Your task to perform on an android device: Open wifi settings Image 0: 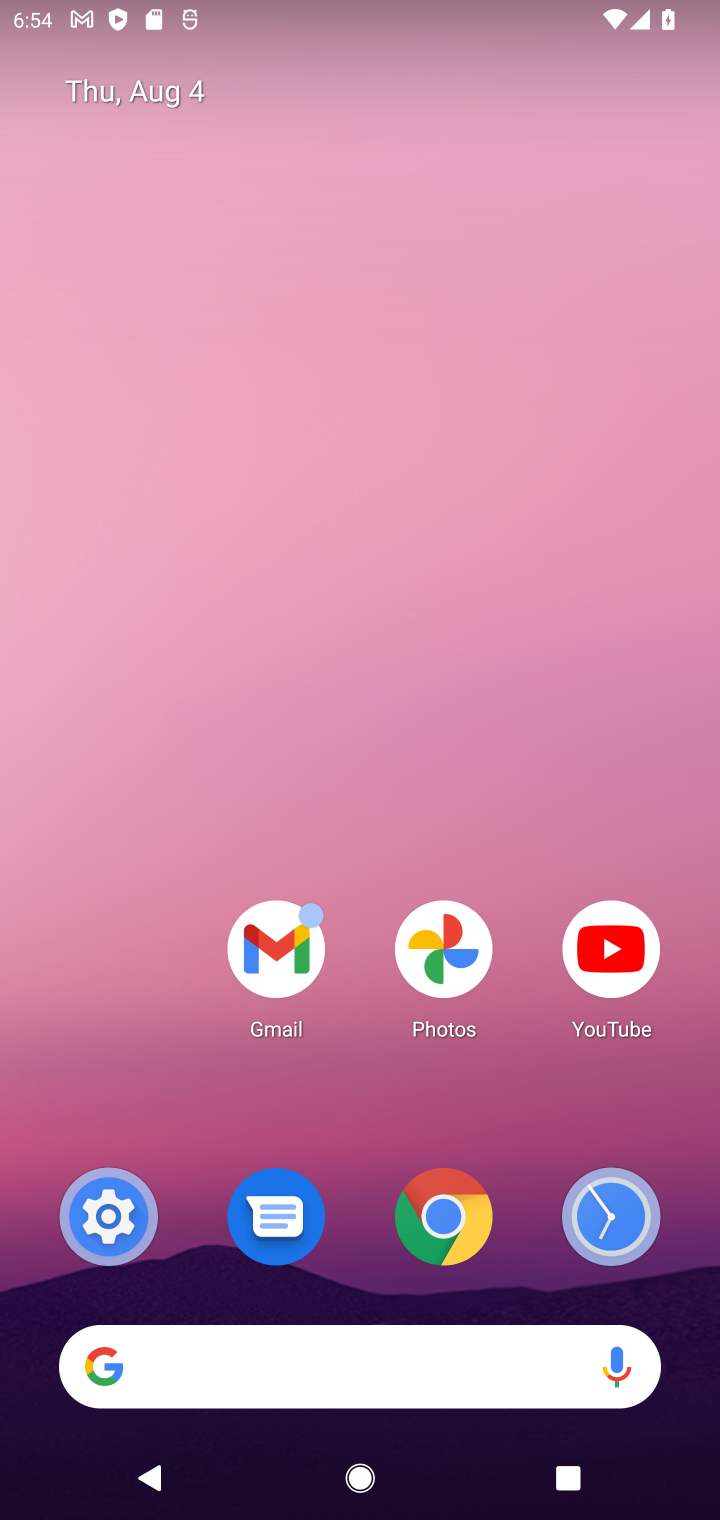
Step 0: drag from (320, 1120) to (310, 103)
Your task to perform on an android device: Open wifi settings Image 1: 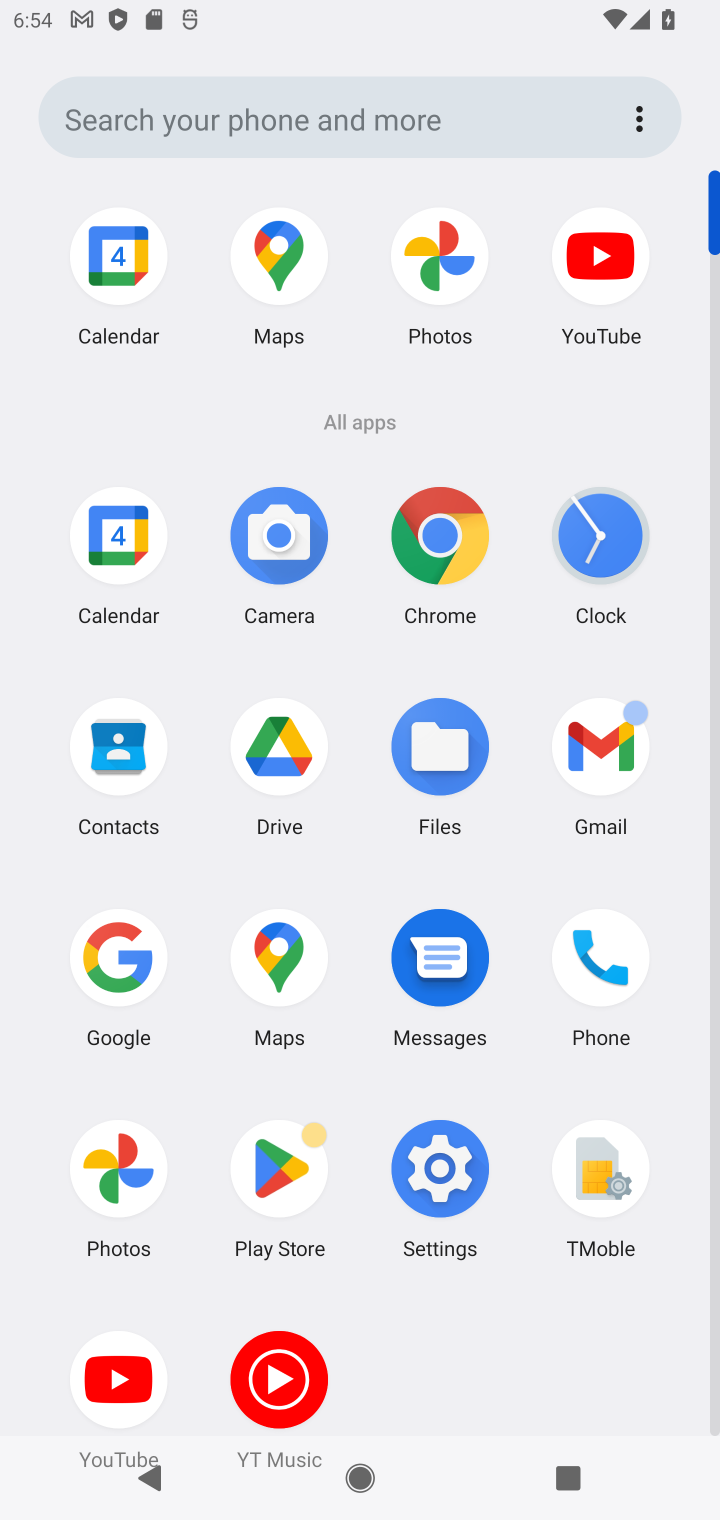
Step 1: click (449, 1164)
Your task to perform on an android device: Open wifi settings Image 2: 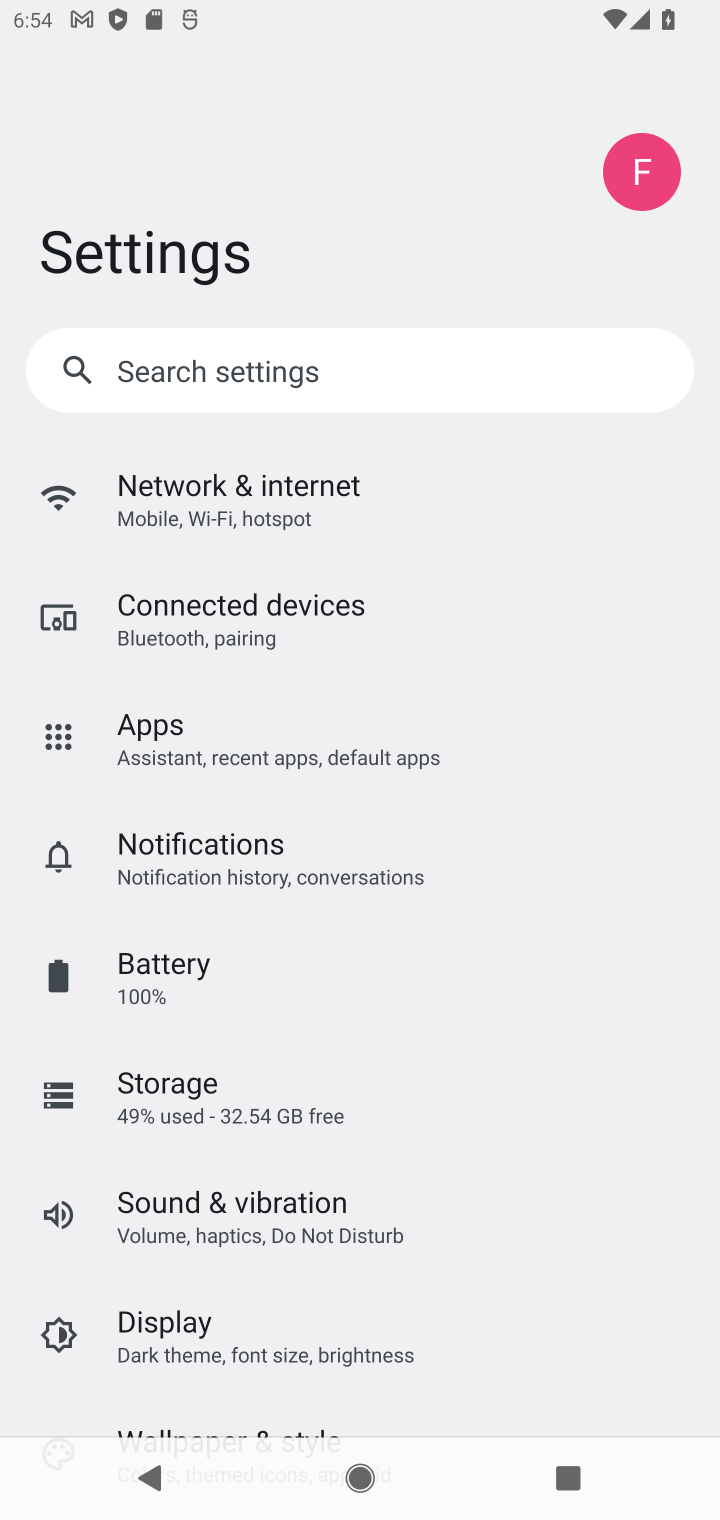
Step 2: click (209, 507)
Your task to perform on an android device: Open wifi settings Image 3: 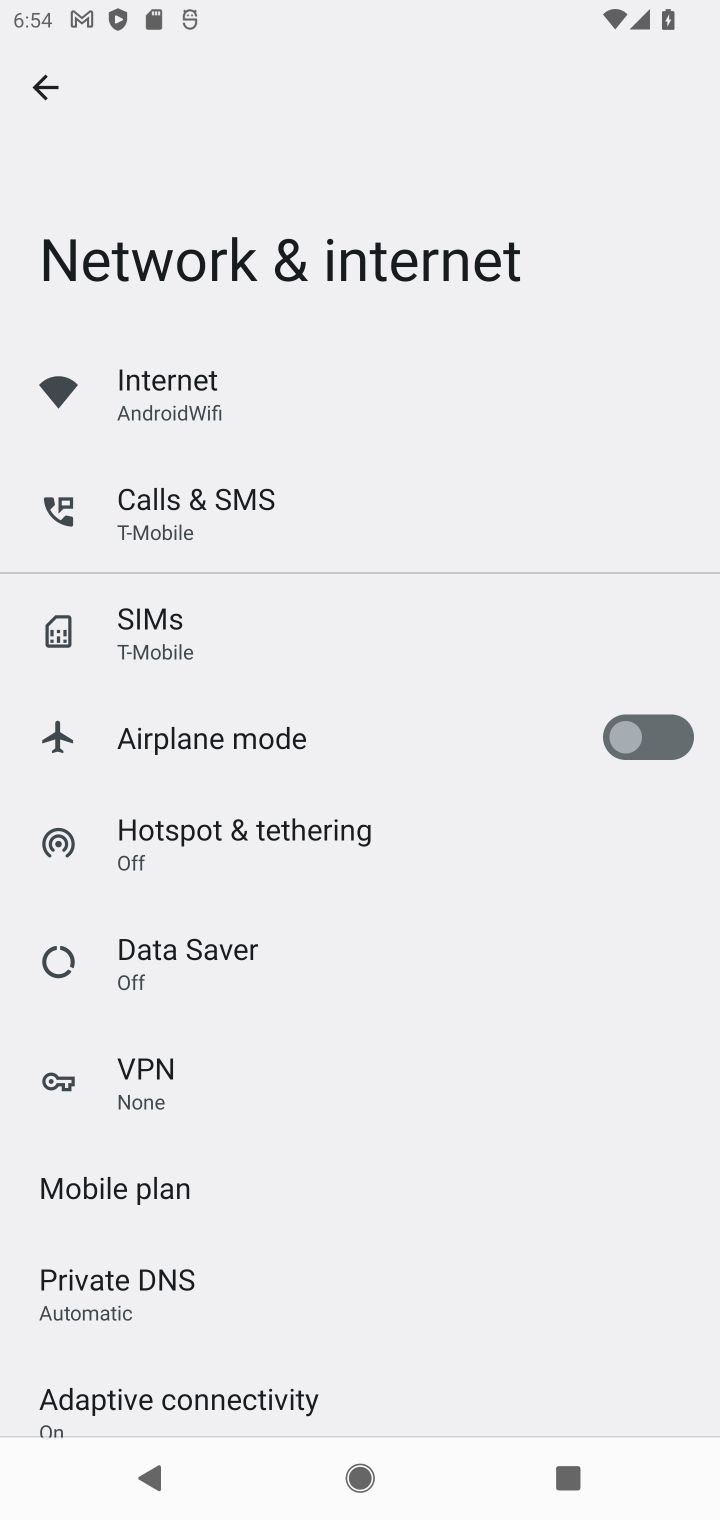
Step 3: click (168, 386)
Your task to perform on an android device: Open wifi settings Image 4: 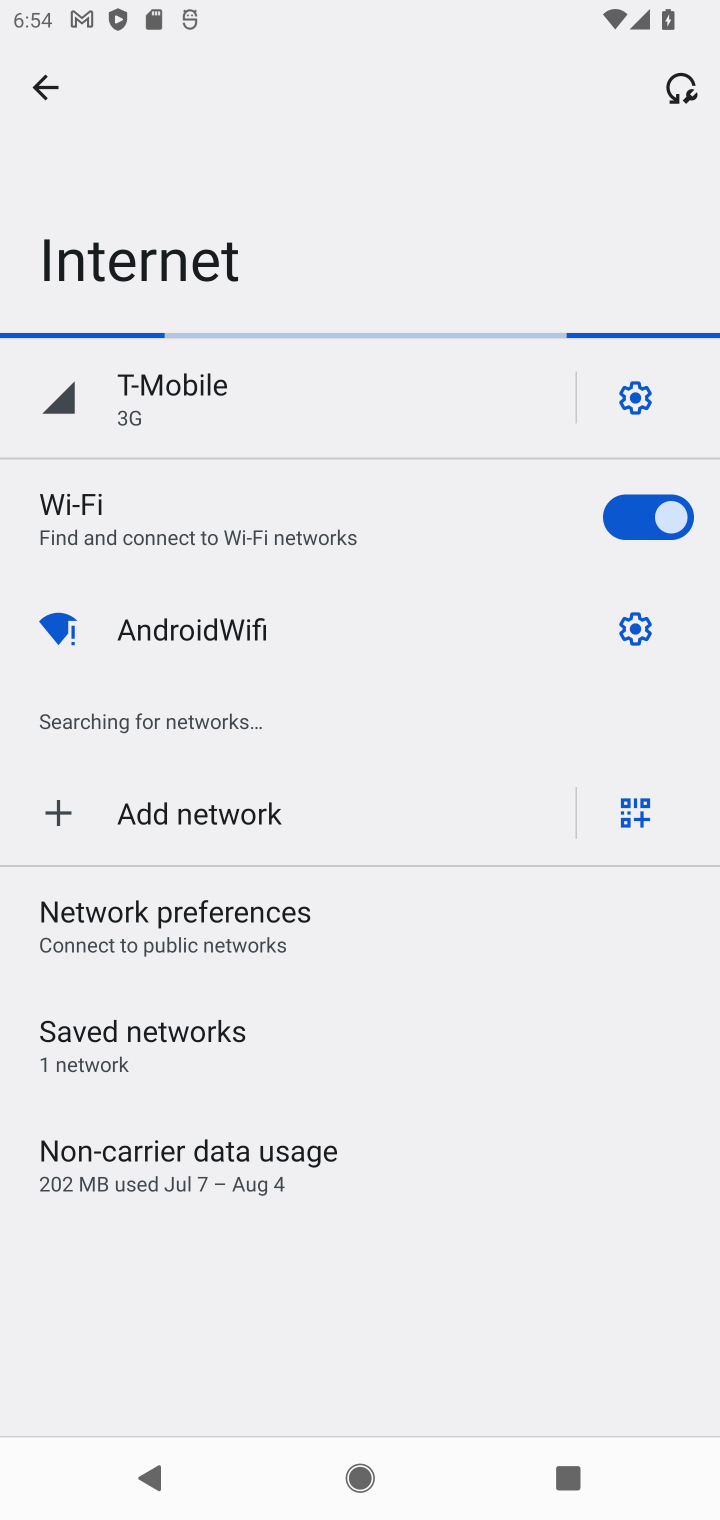
Step 4: task complete